Your task to perform on an android device: Open Wikipedia Image 0: 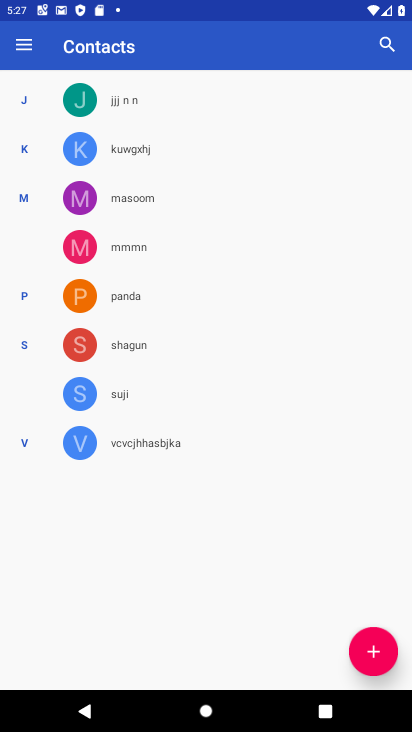
Step 0: press home button
Your task to perform on an android device: Open Wikipedia Image 1: 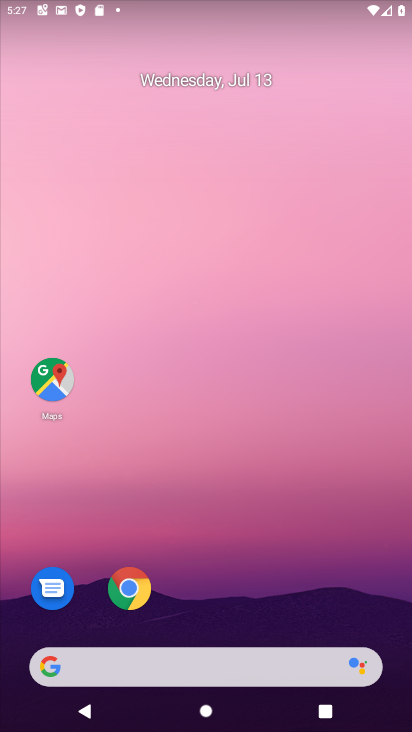
Step 1: drag from (200, 585) to (222, 103)
Your task to perform on an android device: Open Wikipedia Image 2: 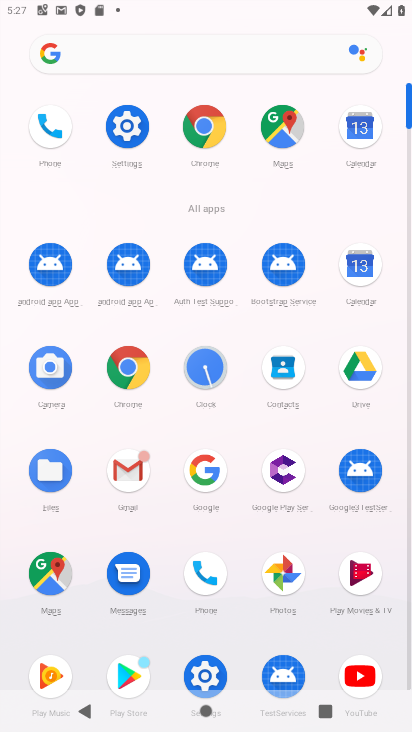
Step 2: click (202, 114)
Your task to perform on an android device: Open Wikipedia Image 3: 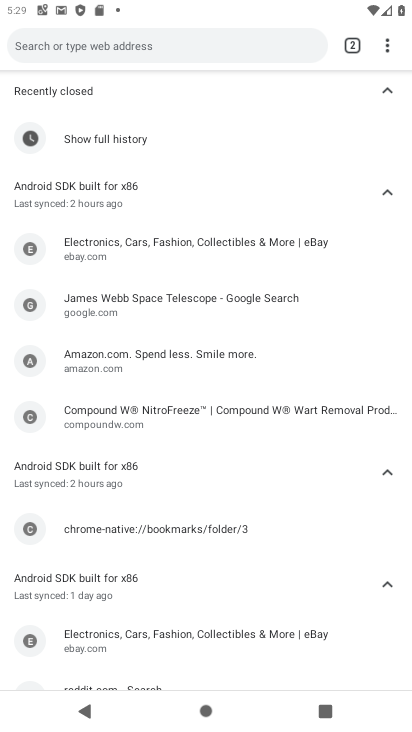
Step 3: press back button
Your task to perform on an android device: Open Wikipedia Image 4: 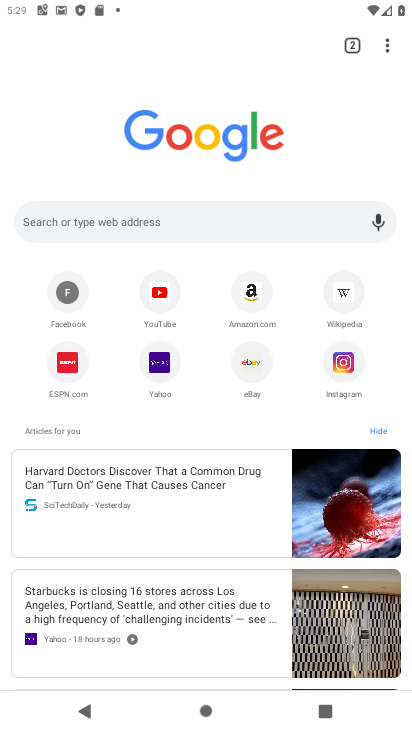
Step 4: click (341, 308)
Your task to perform on an android device: Open Wikipedia Image 5: 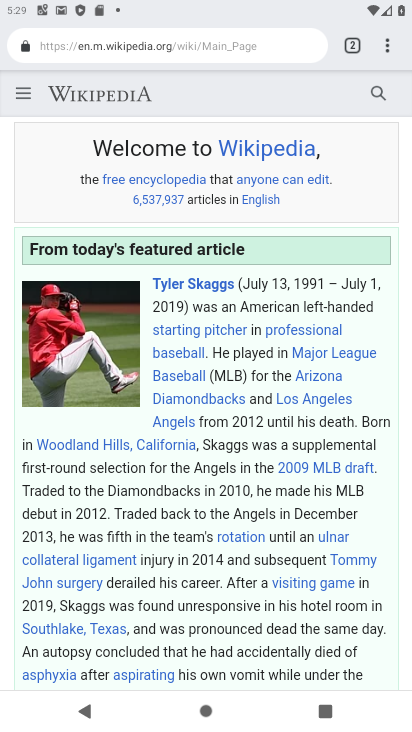
Step 5: task complete